Your task to perform on an android device: turn pop-ups off in chrome Image 0: 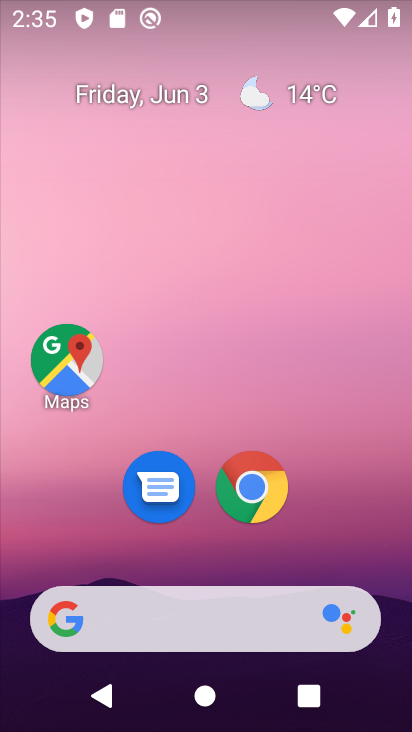
Step 0: click (246, 477)
Your task to perform on an android device: turn pop-ups off in chrome Image 1: 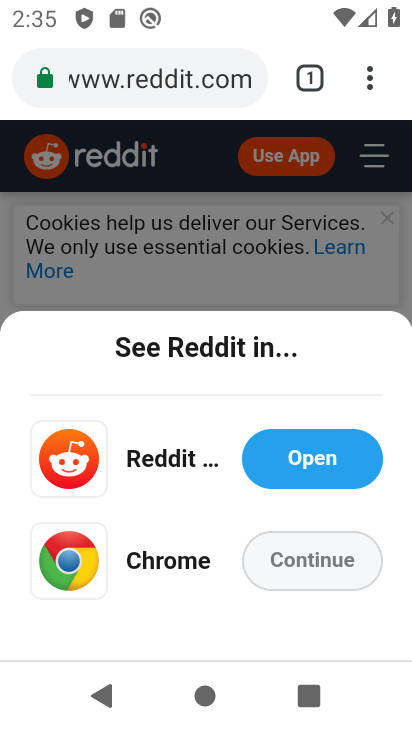
Step 1: drag from (369, 74) to (110, 549)
Your task to perform on an android device: turn pop-ups off in chrome Image 2: 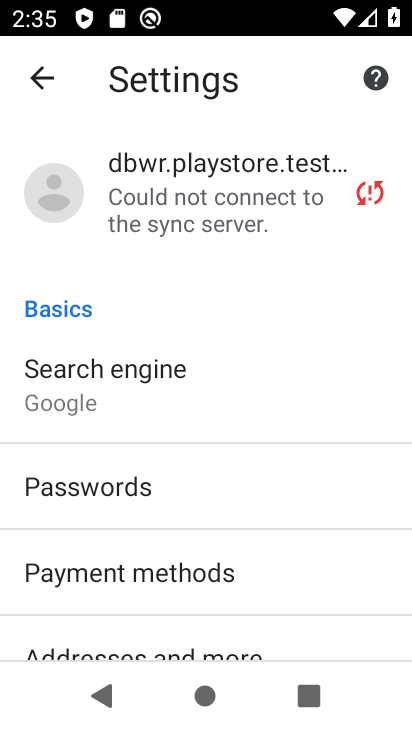
Step 2: drag from (187, 619) to (270, 216)
Your task to perform on an android device: turn pop-ups off in chrome Image 3: 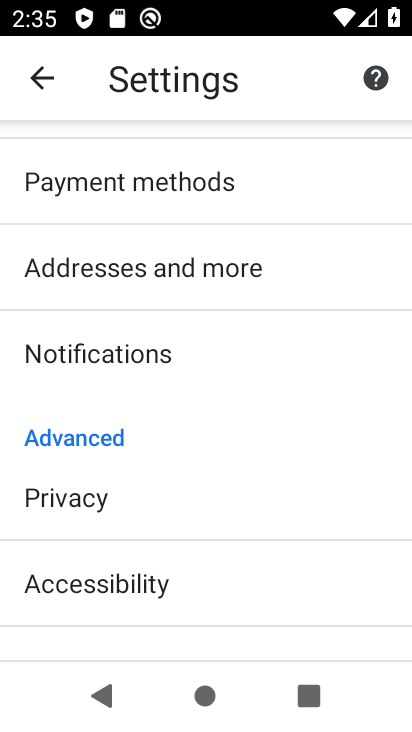
Step 3: drag from (180, 612) to (268, 222)
Your task to perform on an android device: turn pop-ups off in chrome Image 4: 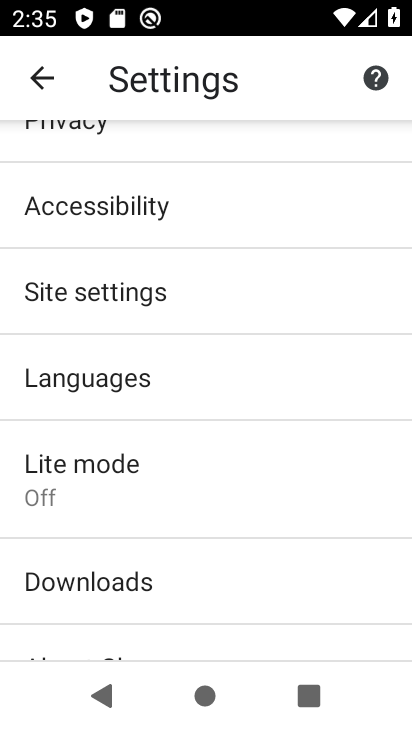
Step 4: click (115, 294)
Your task to perform on an android device: turn pop-ups off in chrome Image 5: 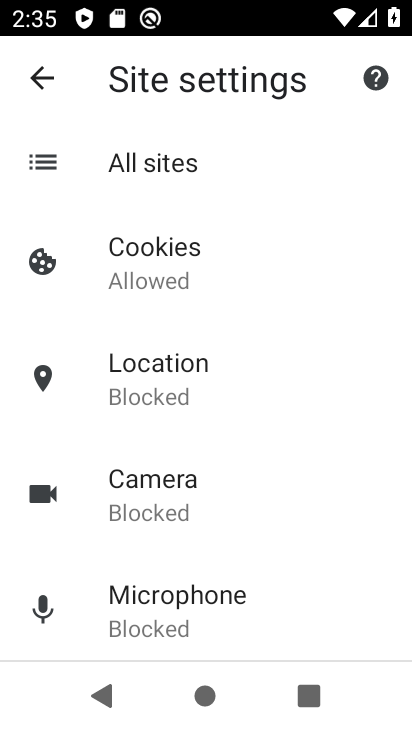
Step 5: drag from (174, 573) to (252, 219)
Your task to perform on an android device: turn pop-ups off in chrome Image 6: 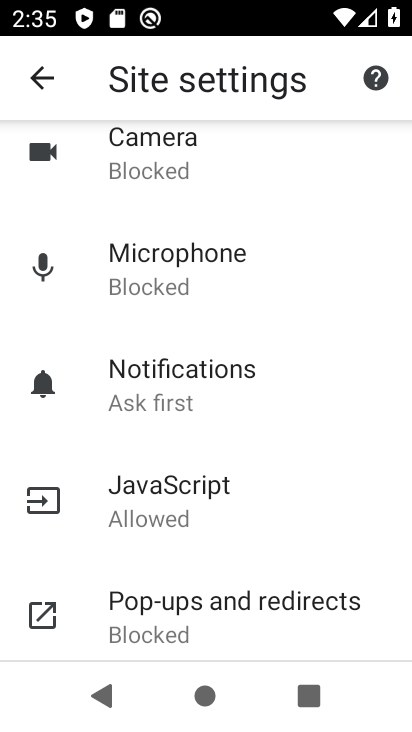
Step 6: click (188, 624)
Your task to perform on an android device: turn pop-ups off in chrome Image 7: 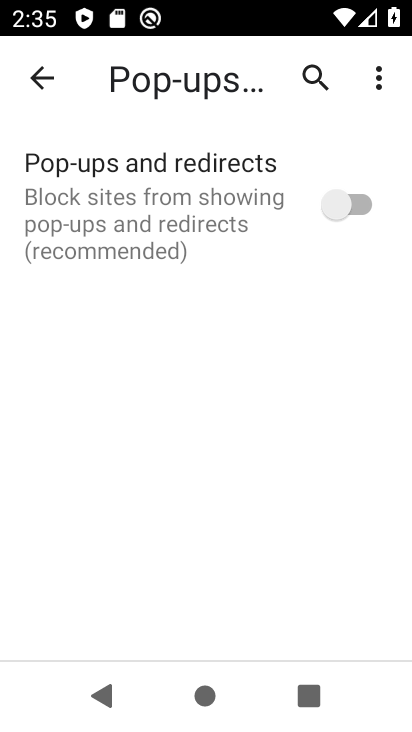
Step 7: task complete